Your task to perform on an android device: Is it going to rain tomorrow? Image 0: 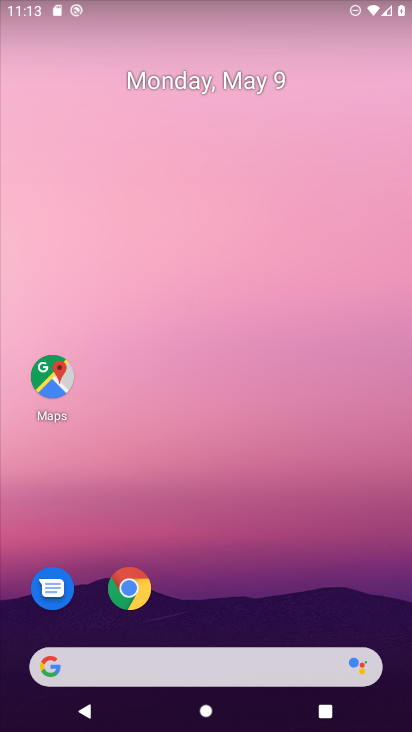
Step 0: click (256, 666)
Your task to perform on an android device: Is it going to rain tomorrow? Image 1: 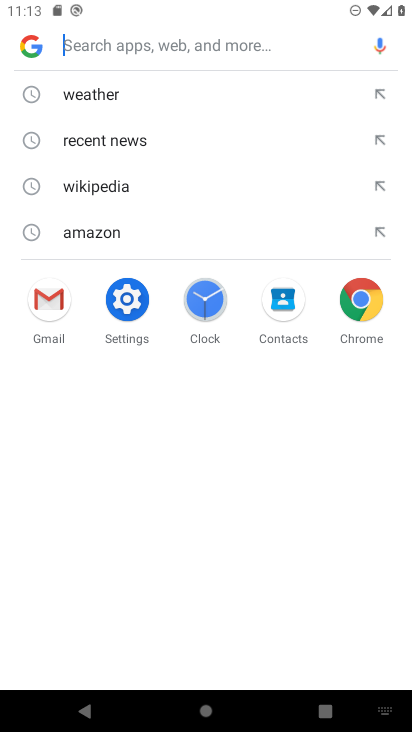
Step 1: click (120, 83)
Your task to perform on an android device: Is it going to rain tomorrow? Image 2: 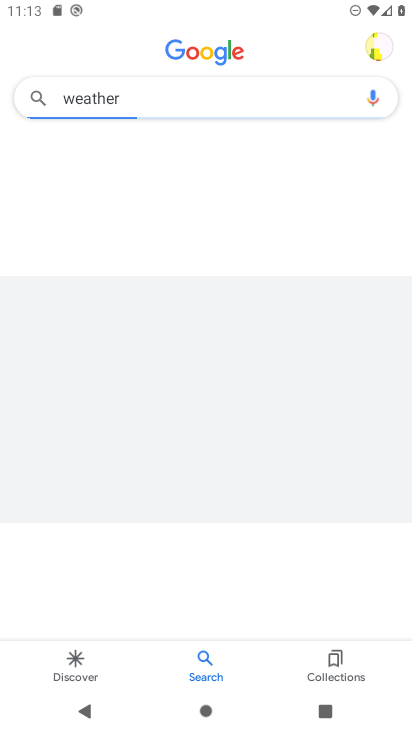
Step 2: task complete